Your task to perform on an android device: empty trash in the gmail app Image 0: 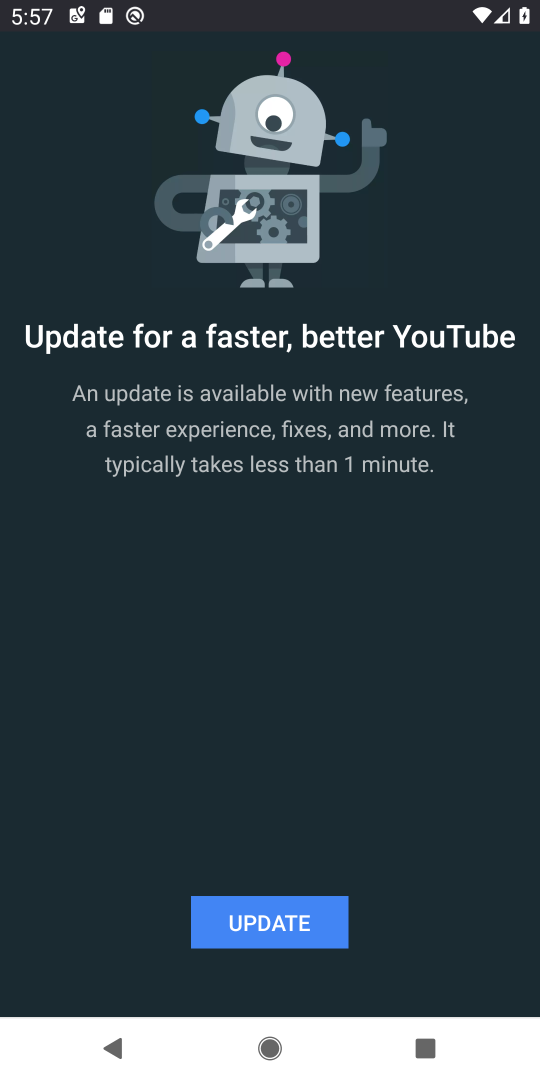
Step 0: press home button
Your task to perform on an android device: empty trash in the gmail app Image 1: 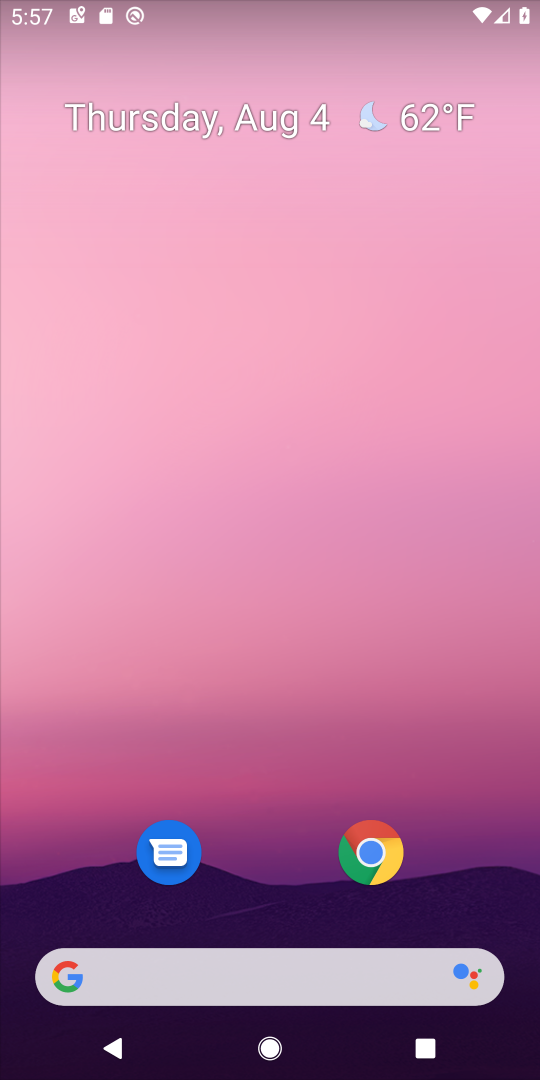
Step 1: drag from (268, 927) to (250, 740)
Your task to perform on an android device: empty trash in the gmail app Image 2: 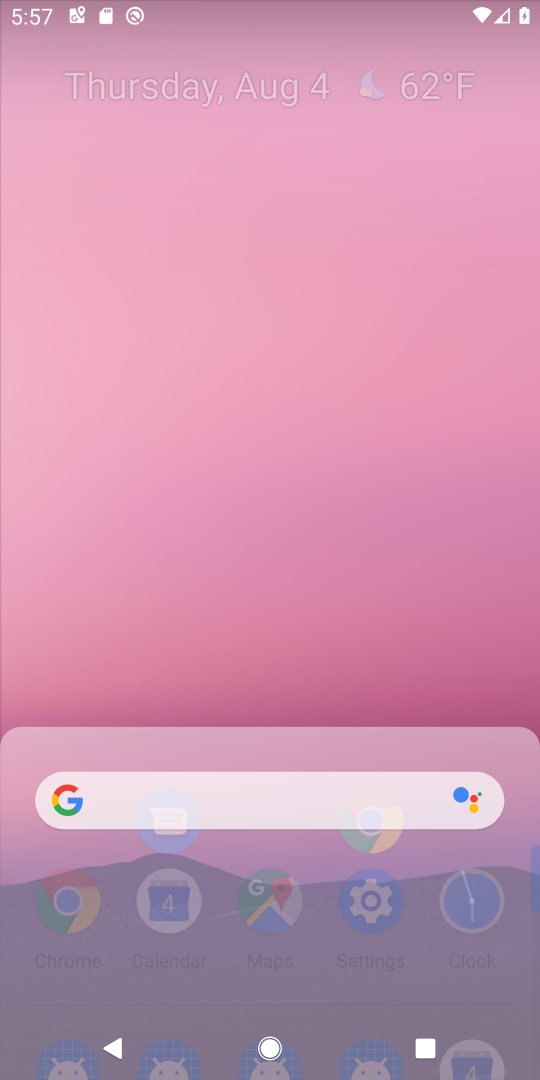
Step 2: click (256, 81)
Your task to perform on an android device: empty trash in the gmail app Image 3: 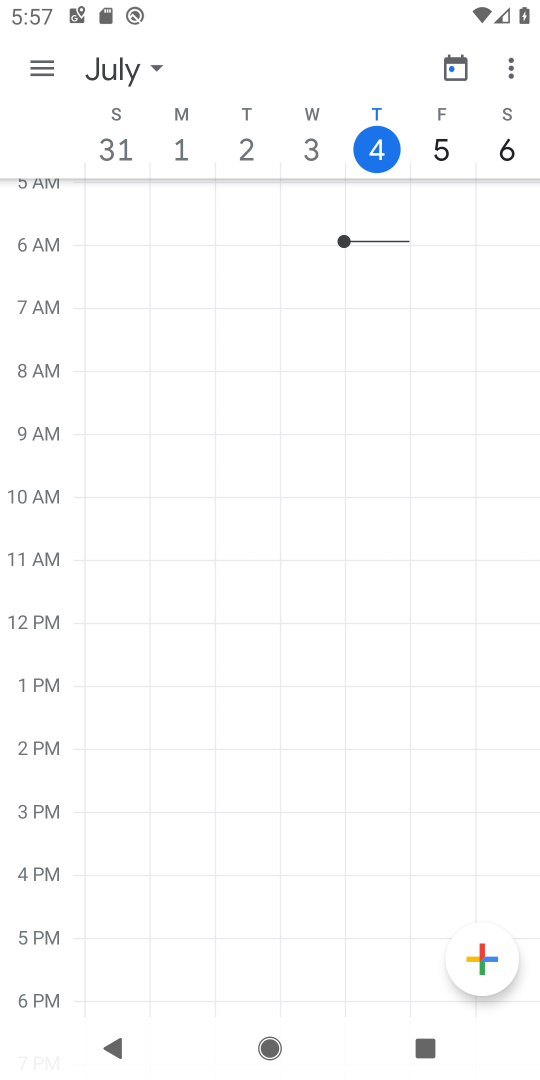
Step 3: press home button
Your task to perform on an android device: empty trash in the gmail app Image 4: 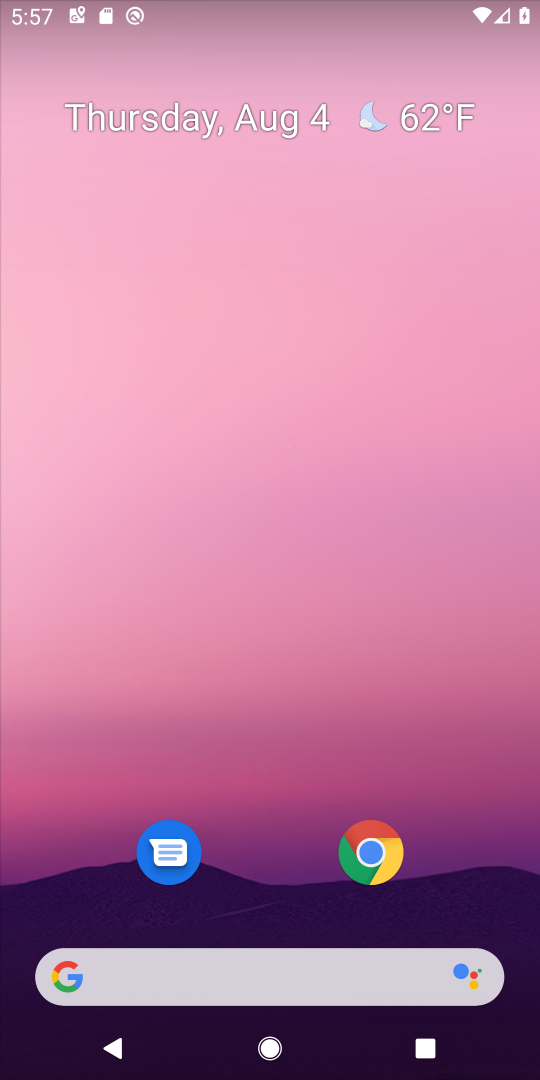
Step 4: click (281, 422)
Your task to perform on an android device: empty trash in the gmail app Image 5: 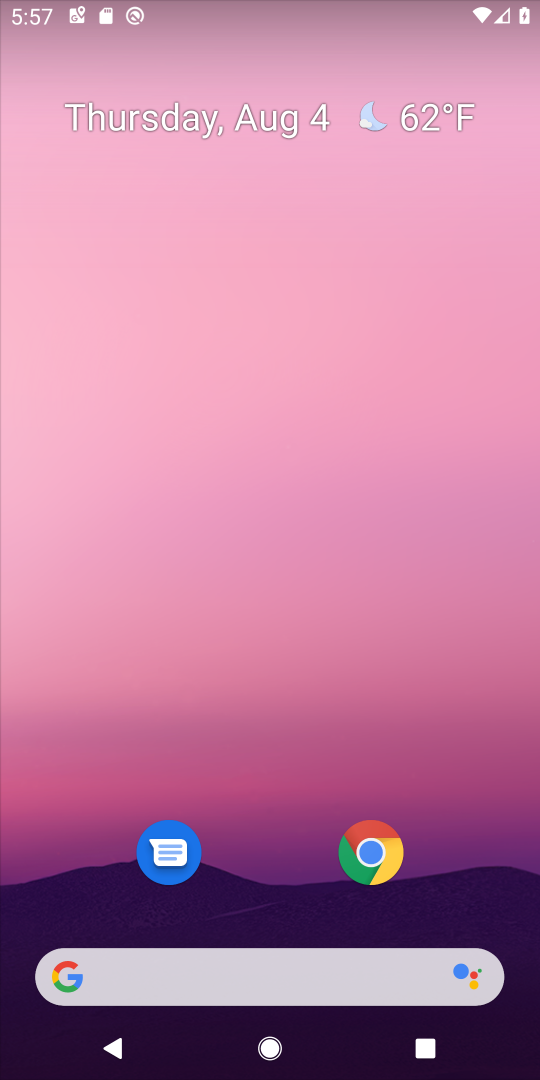
Step 5: drag from (267, 726) to (263, 374)
Your task to perform on an android device: empty trash in the gmail app Image 6: 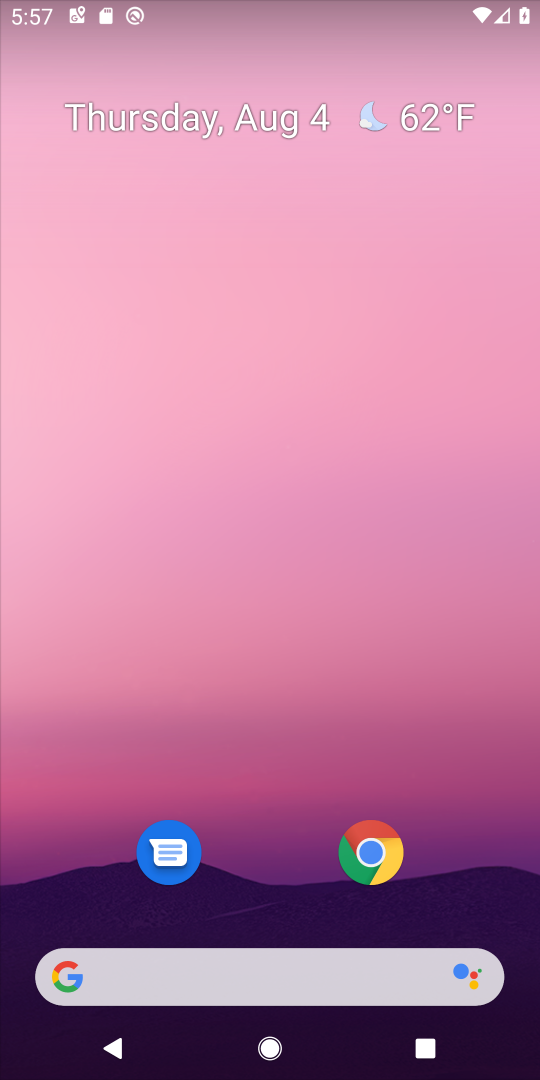
Step 6: drag from (255, 849) to (255, 80)
Your task to perform on an android device: empty trash in the gmail app Image 7: 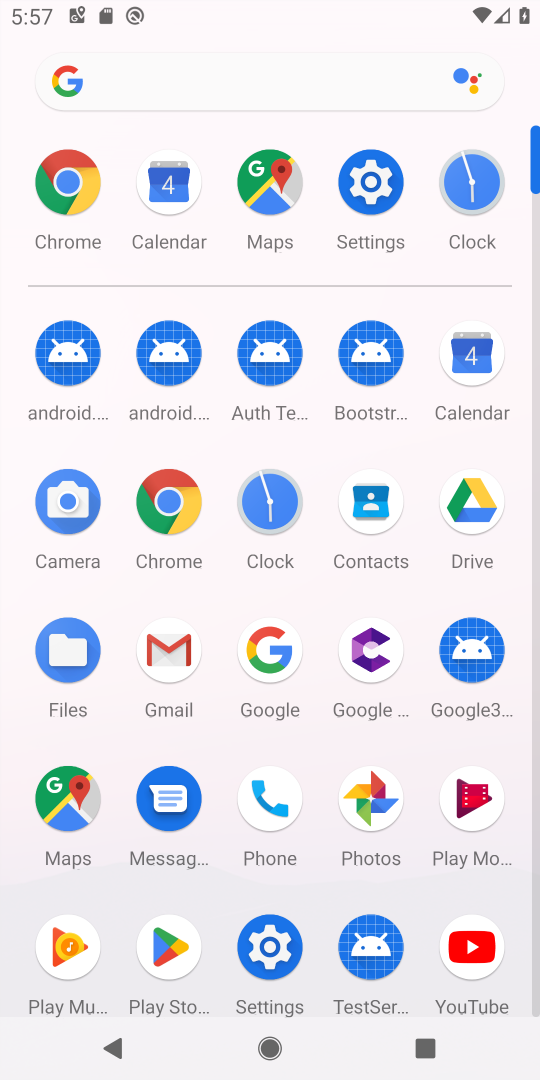
Step 7: click (176, 646)
Your task to perform on an android device: empty trash in the gmail app Image 8: 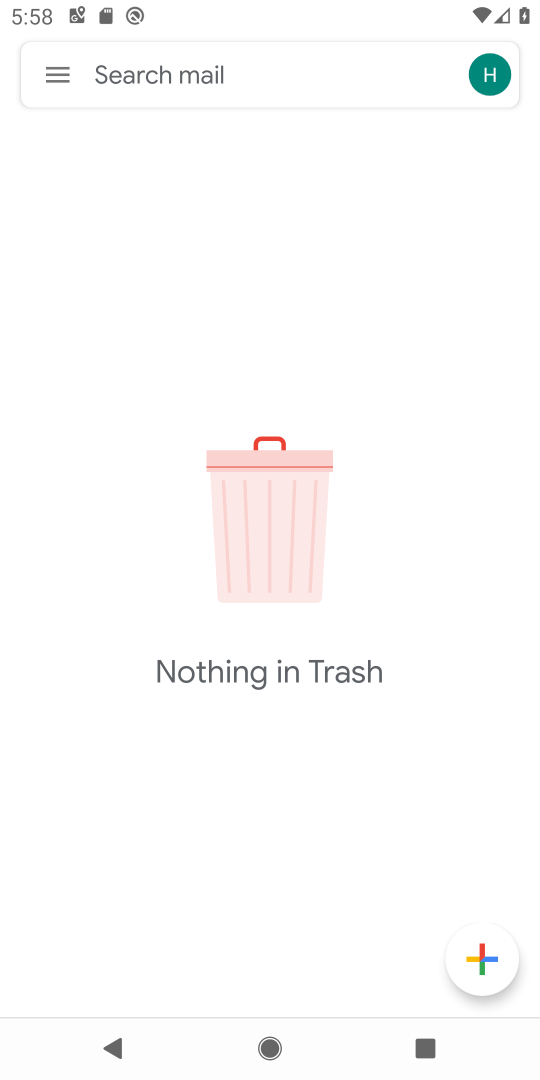
Step 8: click (50, 73)
Your task to perform on an android device: empty trash in the gmail app Image 9: 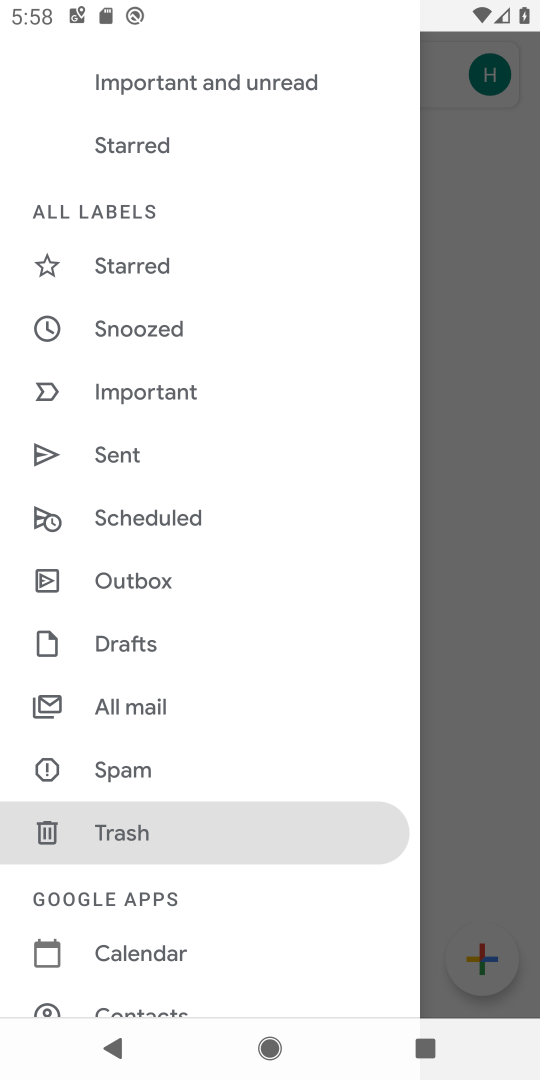
Step 9: click (119, 828)
Your task to perform on an android device: empty trash in the gmail app Image 10: 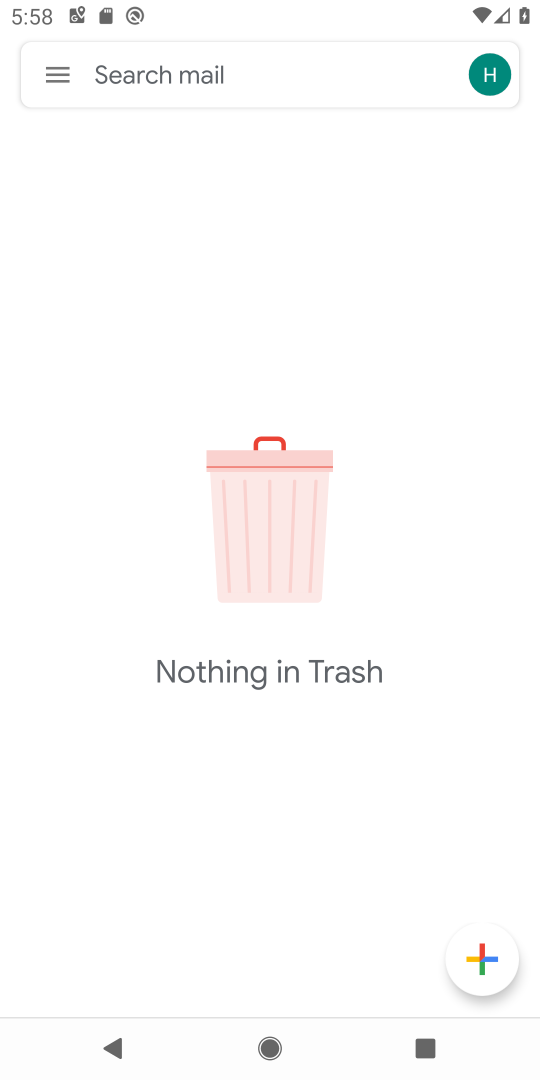
Step 10: task complete